Your task to perform on an android device: move a message to another label in the gmail app Image 0: 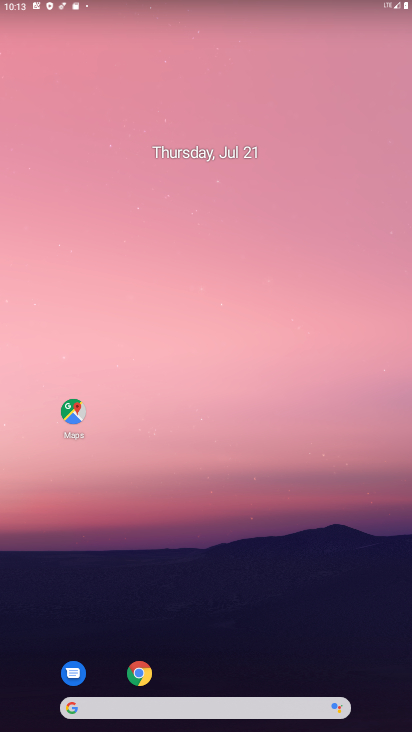
Step 0: drag from (206, 681) to (194, 207)
Your task to perform on an android device: move a message to another label in the gmail app Image 1: 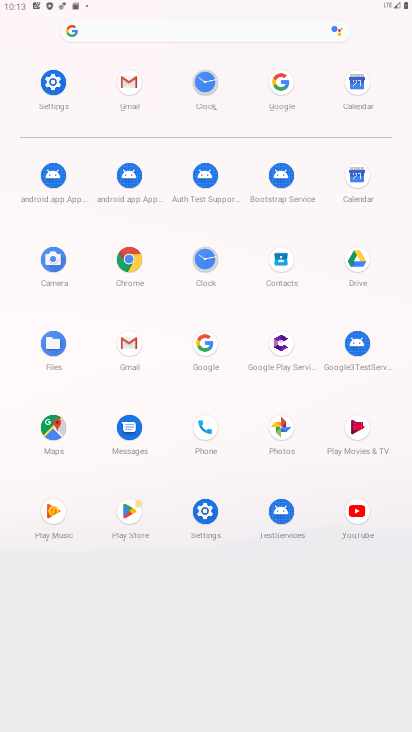
Step 1: click (133, 356)
Your task to perform on an android device: move a message to another label in the gmail app Image 2: 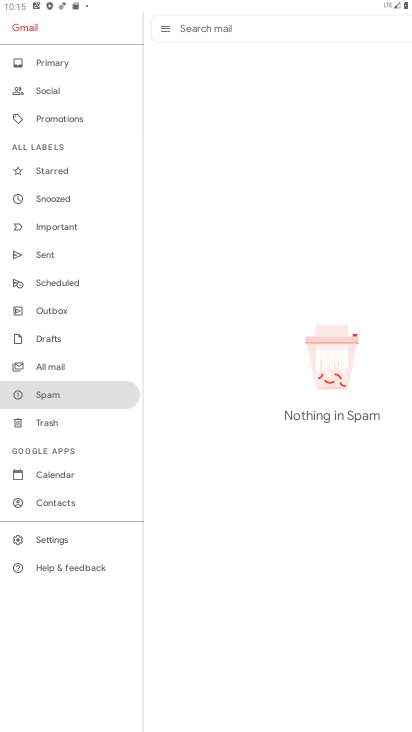
Step 2: click (65, 376)
Your task to perform on an android device: move a message to another label in the gmail app Image 3: 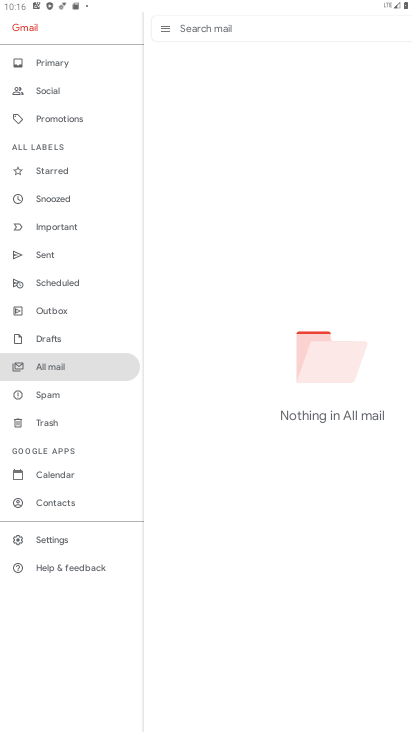
Step 3: task complete